Your task to perform on an android device: Turn on the flashlight Image 0: 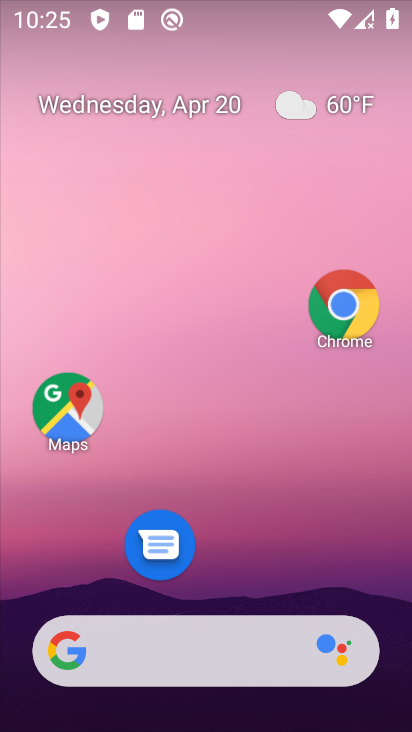
Step 0: drag from (225, 70) to (237, 634)
Your task to perform on an android device: Turn on the flashlight Image 1: 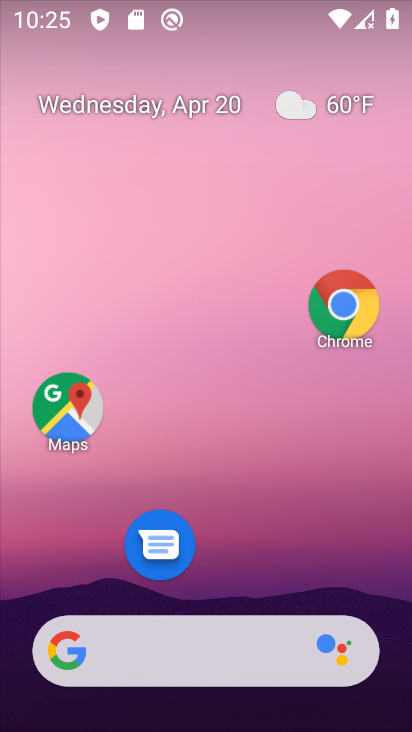
Step 1: task complete